Your task to perform on an android device: see tabs open on other devices in the chrome app Image 0: 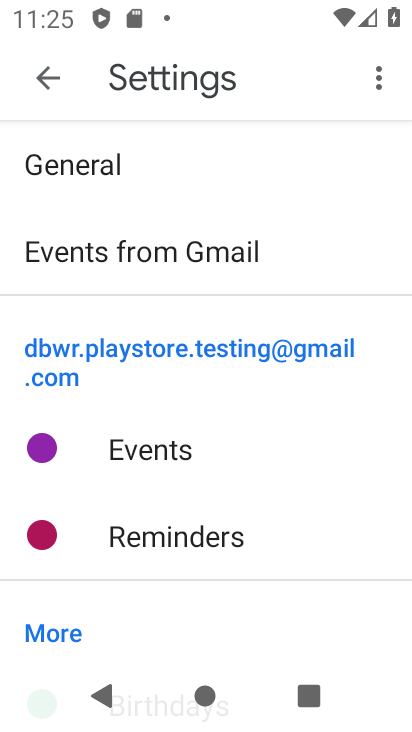
Step 0: press home button
Your task to perform on an android device: see tabs open on other devices in the chrome app Image 1: 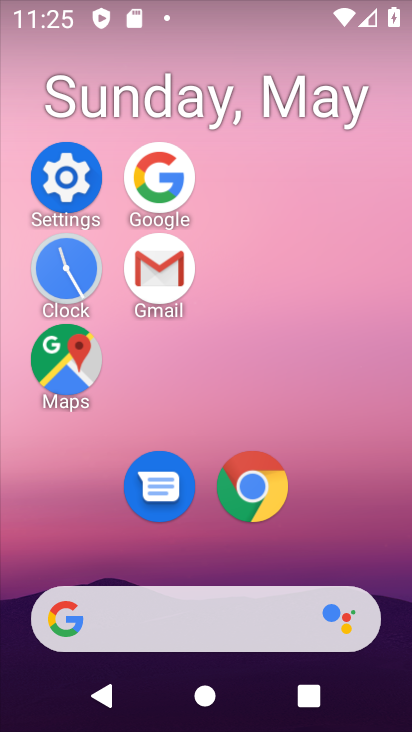
Step 1: click (266, 483)
Your task to perform on an android device: see tabs open on other devices in the chrome app Image 2: 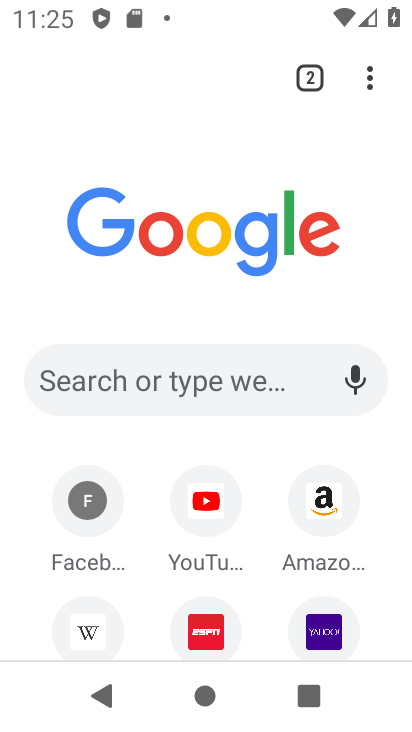
Step 2: click (300, 88)
Your task to perform on an android device: see tabs open on other devices in the chrome app Image 3: 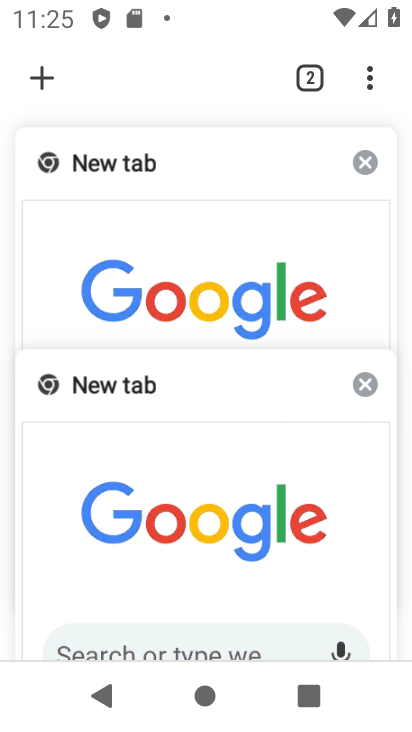
Step 3: click (50, 80)
Your task to perform on an android device: see tabs open on other devices in the chrome app Image 4: 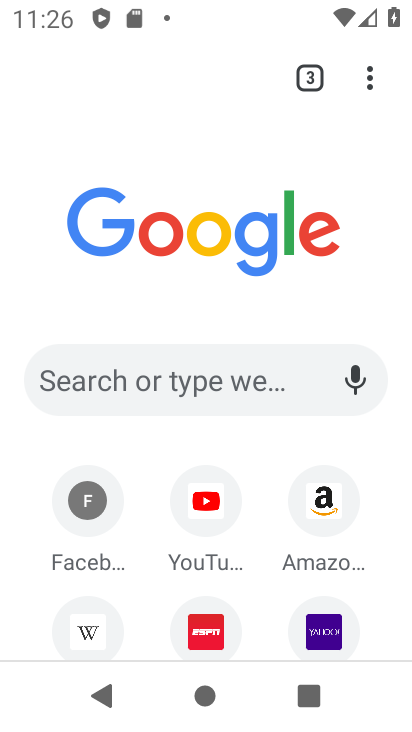
Step 4: click (305, 85)
Your task to perform on an android device: see tabs open on other devices in the chrome app Image 5: 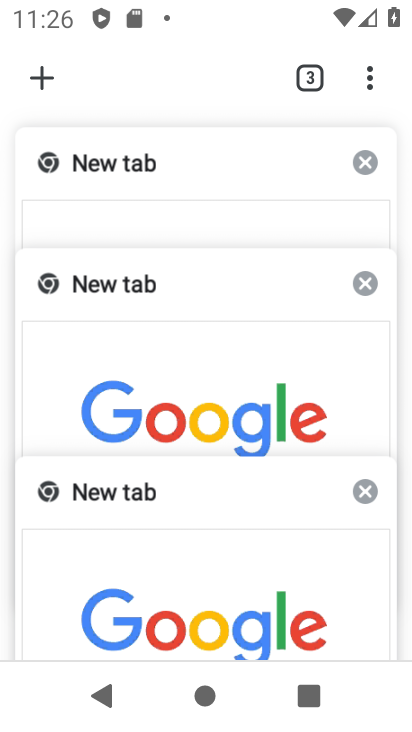
Step 5: task complete